Your task to perform on an android device: Open the map Image 0: 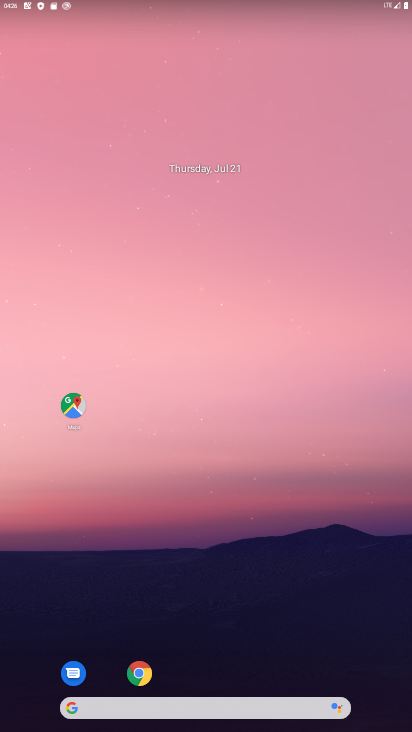
Step 0: drag from (283, 593) to (261, 74)
Your task to perform on an android device: Open the map Image 1: 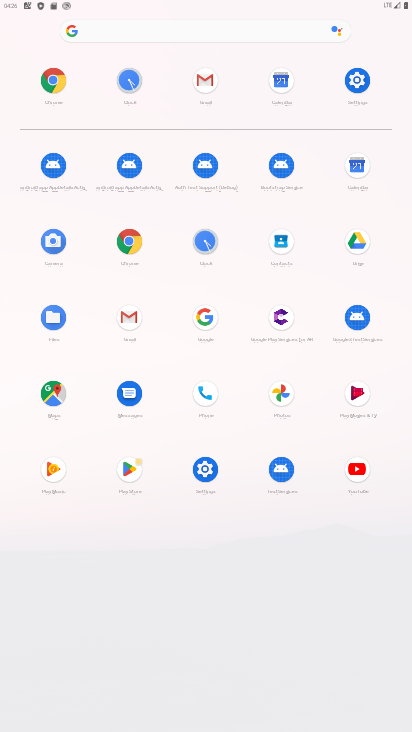
Step 1: click (46, 391)
Your task to perform on an android device: Open the map Image 2: 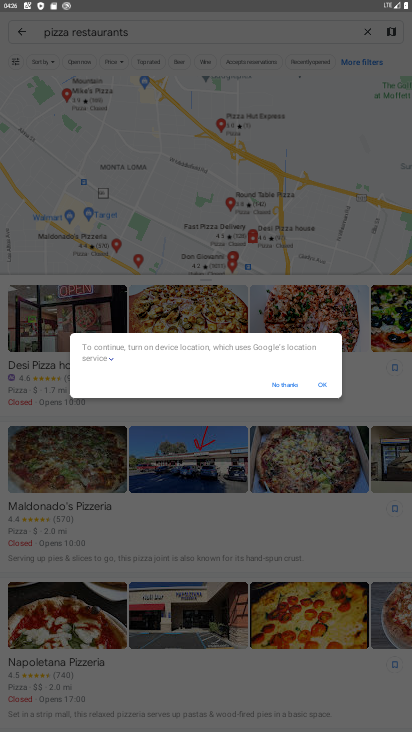
Step 2: click (320, 376)
Your task to perform on an android device: Open the map Image 3: 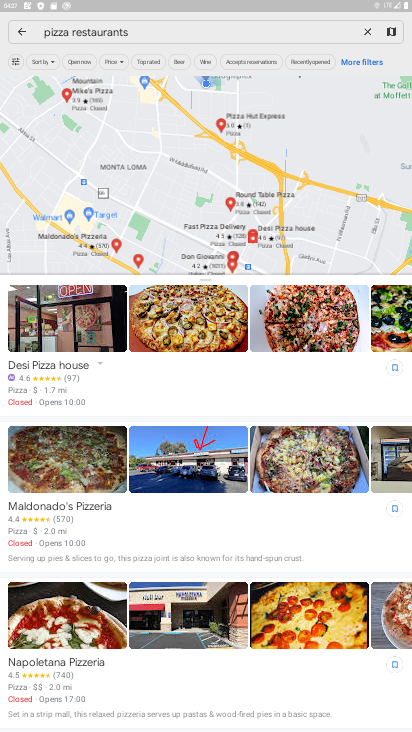
Step 3: task complete